Your task to perform on an android device: Go to Reddit.com Image 0: 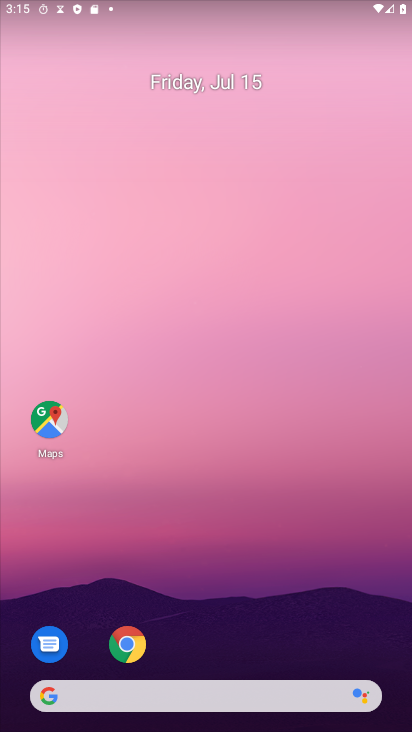
Step 0: drag from (298, 697) to (273, 3)
Your task to perform on an android device: Go to Reddit.com Image 1: 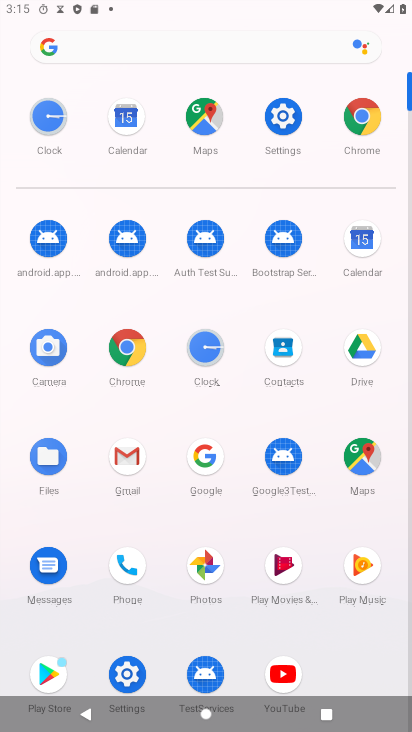
Step 1: click (132, 348)
Your task to perform on an android device: Go to Reddit.com Image 2: 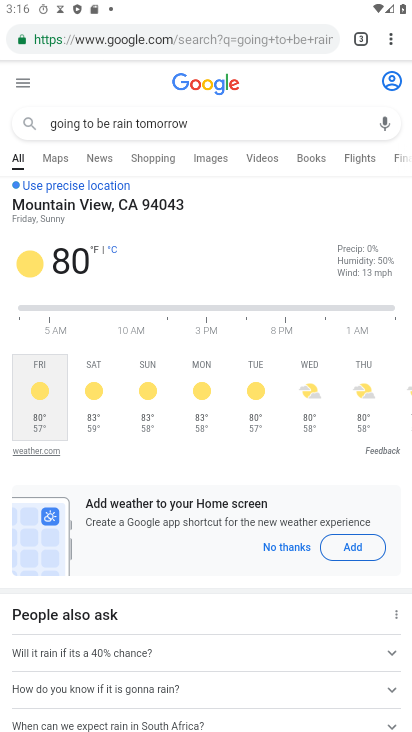
Step 2: click (199, 30)
Your task to perform on an android device: Go to Reddit.com Image 3: 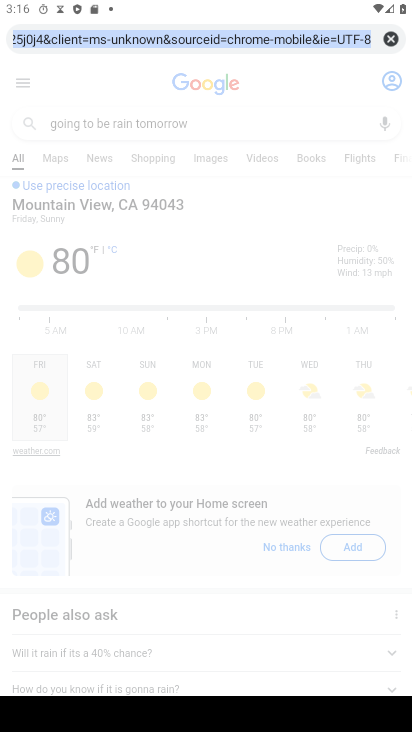
Step 3: type "reddit.com"
Your task to perform on an android device: Go to Reddit.com Image 4: 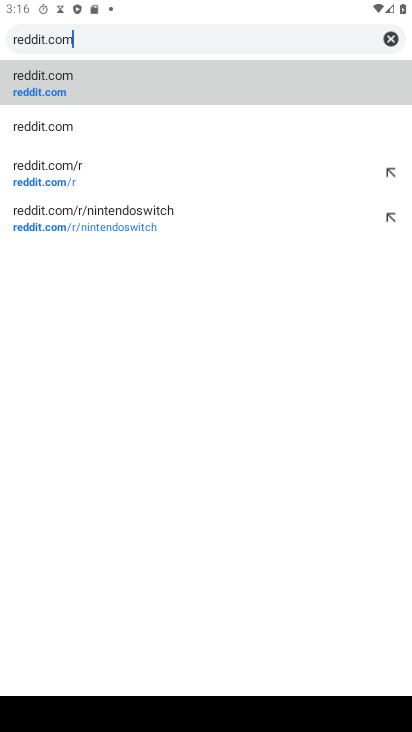
Step 4: click (62, 90)
Your task to perform on an android device: Go to Reddit.com Image 5: 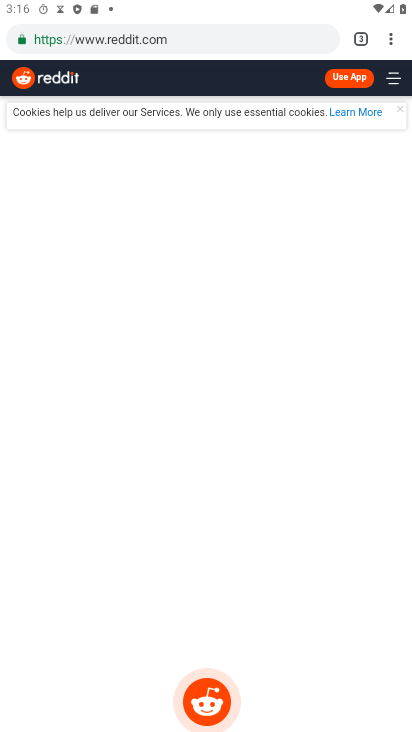
Step 5: task complete